Your task to perform on an android device: When is my next meeting? Image 0: 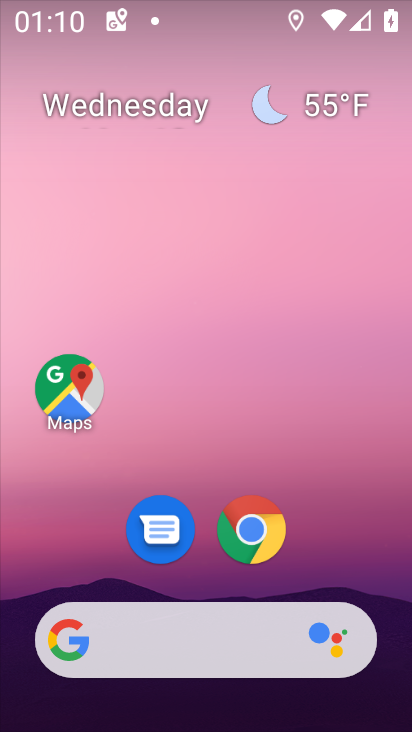
Step 0: drag from (201, 721) to (254, 187)
Your task to perform on an android device: When is my next meeting? Image 1: 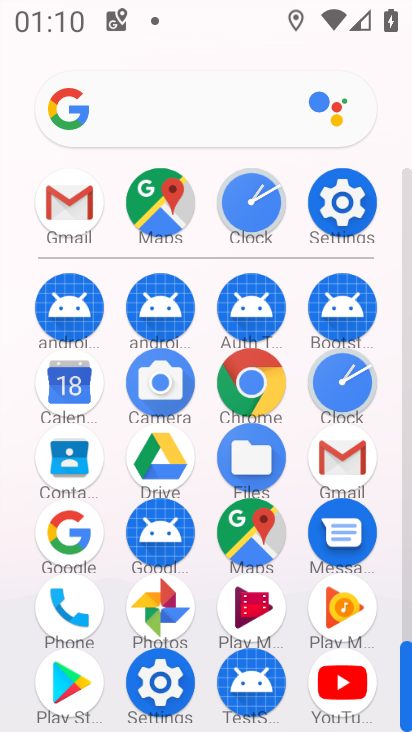
Step 1: click (55, 390)
Your task to perform on an android device: When is my next meeting? Image 2: 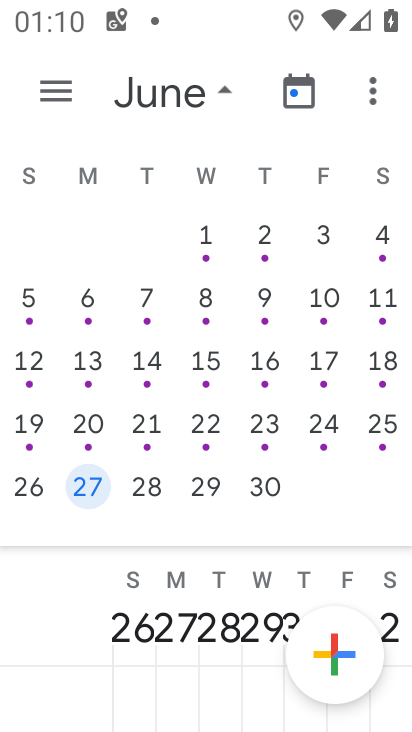
Step 2: drag from (38, 389) to (412, 368)
Your task to perform on an android device: When is my next meeting? Image 3: 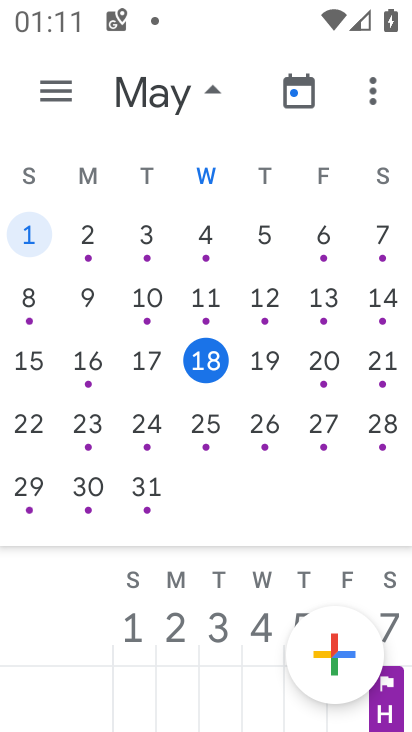
Step 3: click (269, 357)
Your task to perform on an android device: When is my next meeting? Image 4: 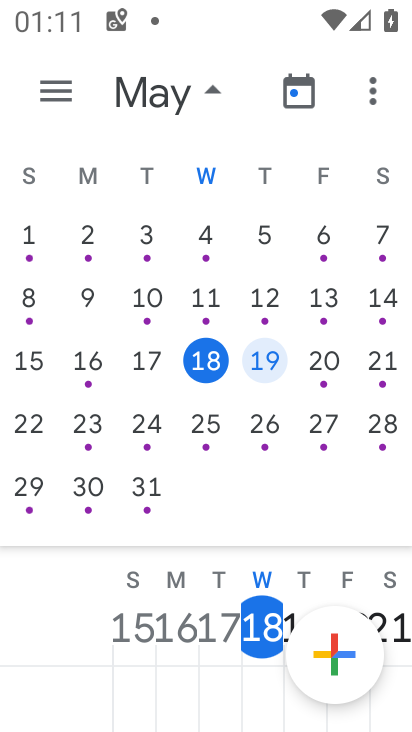
Step 4: click (269, 357)
Your task to perform on an android device: When is my next meeting? Image 5: 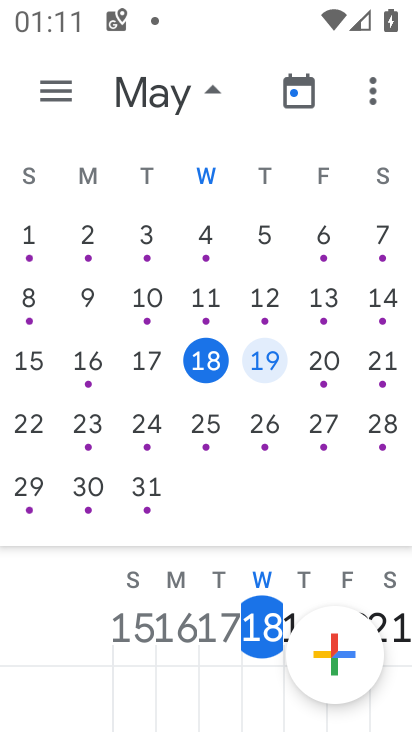
Step 5: click (269, 357)
Your task to perform on an android device: When is my next meeting? Image 6: 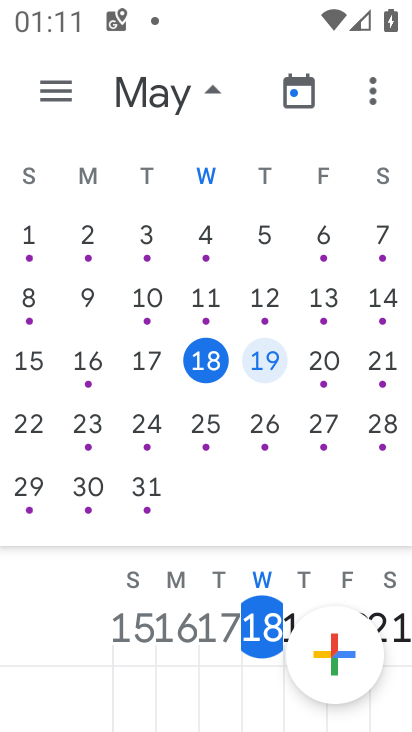
Step 6: click (258, 363)
Your task to perform on an android device: When is my next meeting? Image 7: 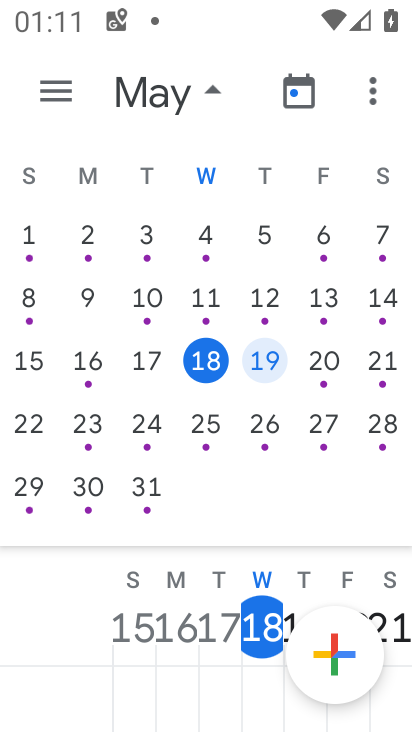
Step 7: click (214, 93)
Your task to perform on an android device: When is my next meeting? Image 8: 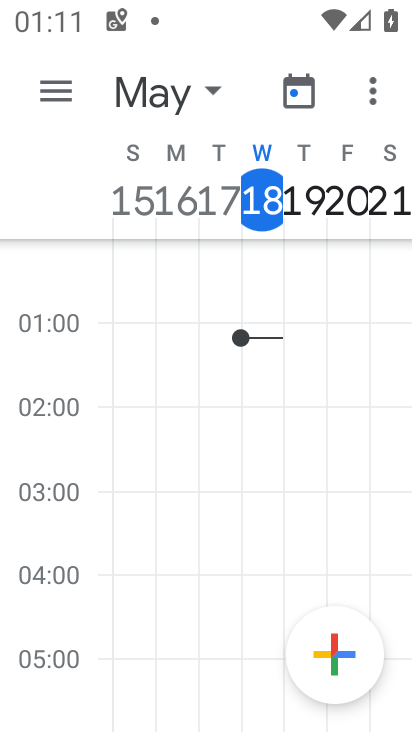
Step 8: click (261, 204)
Your task to perform on an android device: When is my next meeting? Image 9: 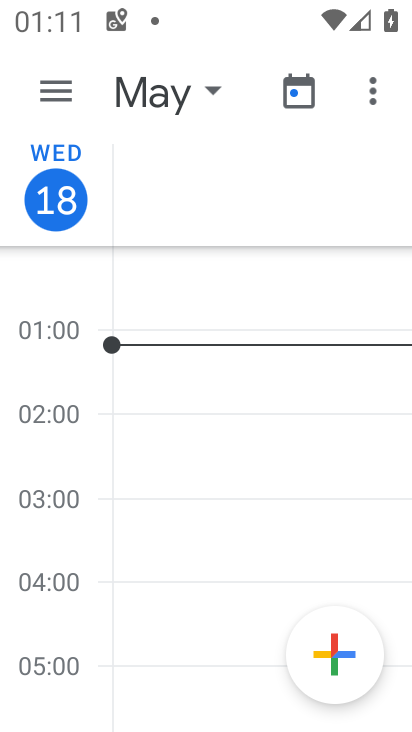
Step 9: task complete